Your task to perform on an android device: turn on the 12-hour format for clock Image 0: 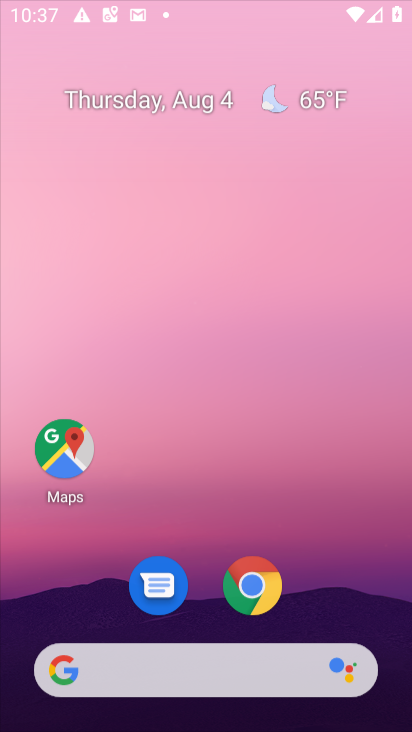
Step 0: click (295, 138)
Your task to perform on an android device: turn on the 12-hour format for clock Image 1: 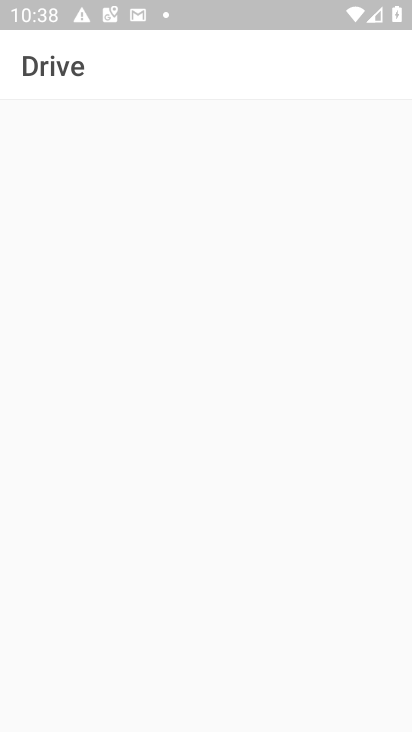
Step 1: press home button
Your task to perform on an android device: turn on the 12-hour format for clock Image 2: 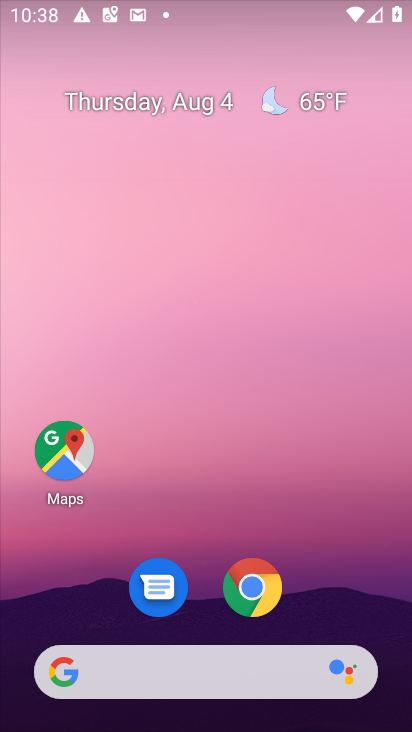
Step 2: drag from (216, 559) to (209, 171)
Your task to perform on an android device: turn on the 12-hour format for clock Image 3: 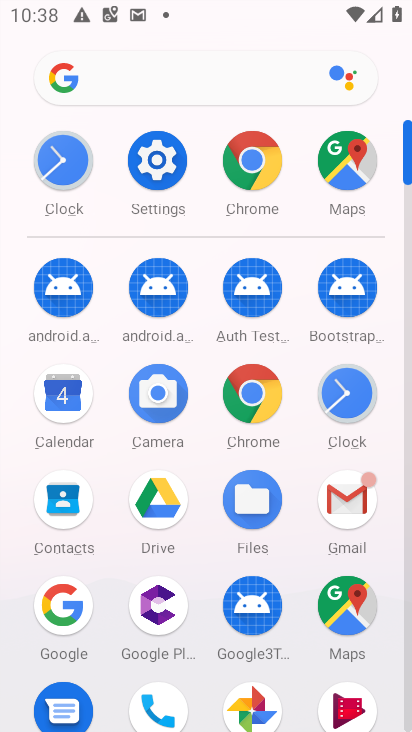
Step 3: click (340, 378)
Your task to perform on an android device: turn on the 12-hour format for clock Image 4: 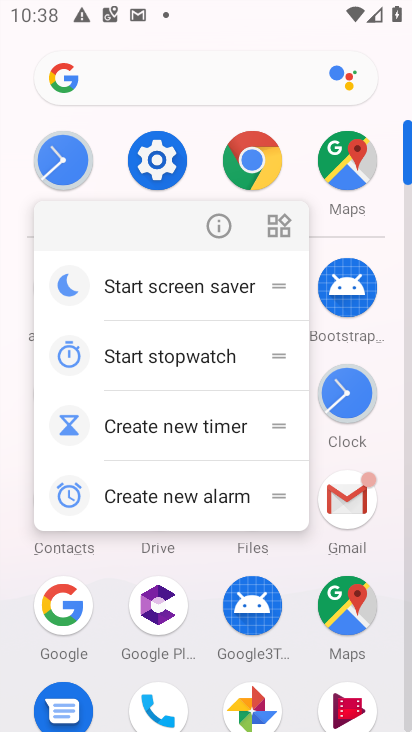
Step 4: click (347, 408)
Your task to perform on an android device: turn on the 12-hour format for clock Image 5: 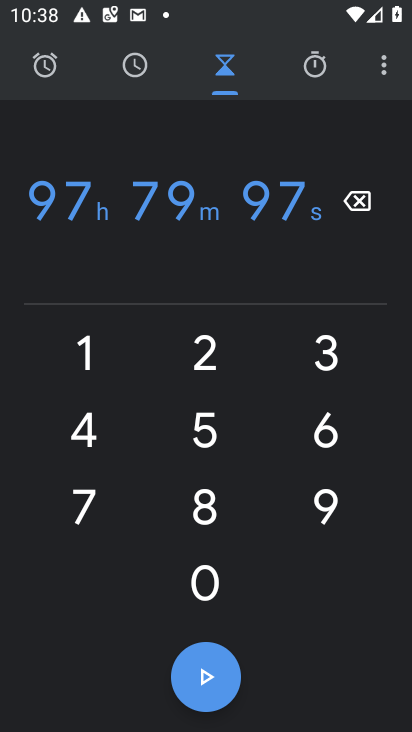
Step 5: click (395, 72)
Your task to perform on an android device: turn on the 12-hour format for clock Image 6: 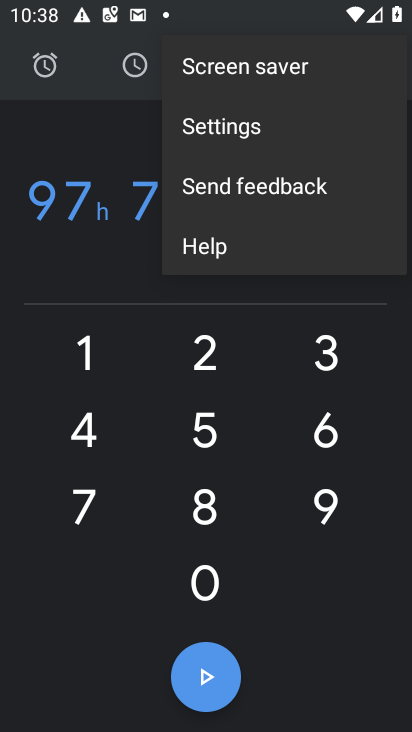
Step 6: click (216, 140)
Your task to perform on an android device: turn on the 12-hour format for clock Image 7: 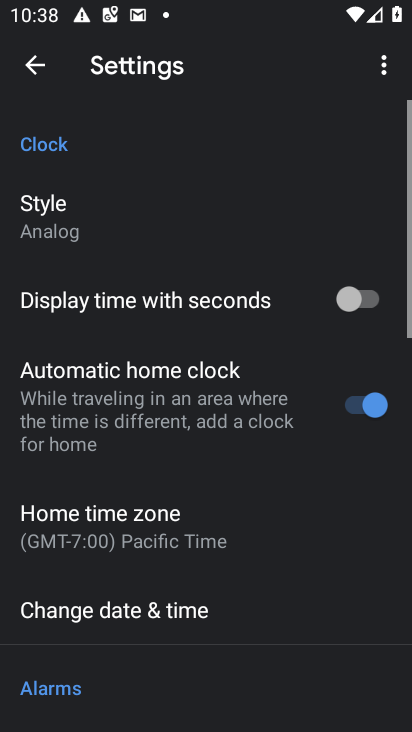
Step 7: drag from (166, 611) to (168, 336)
Your task to perform on an android device: turn on the 12-hour format for clock Image 8: 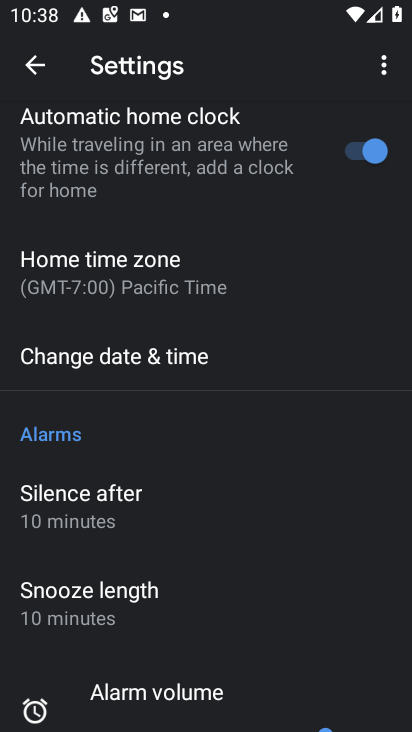
Step 8: click (151, 361)
Your task to perform on an android device: turn on the 12-hour format for clock Image 9: 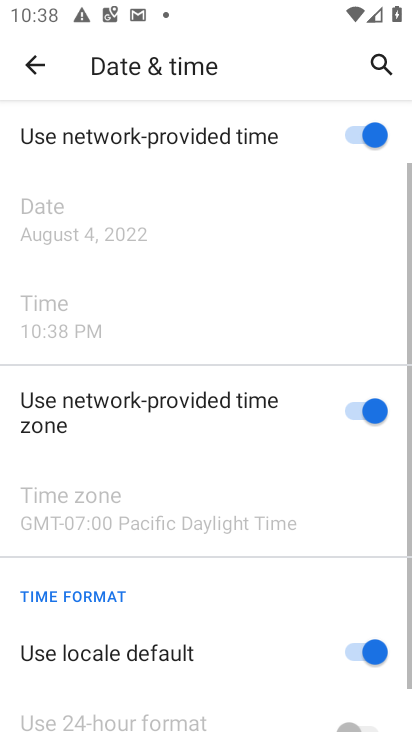
Step 9: drag from (226, 626) to (232, 297)
Your task to perform on an android device: turn on the 12-hour format for clock Image 10: 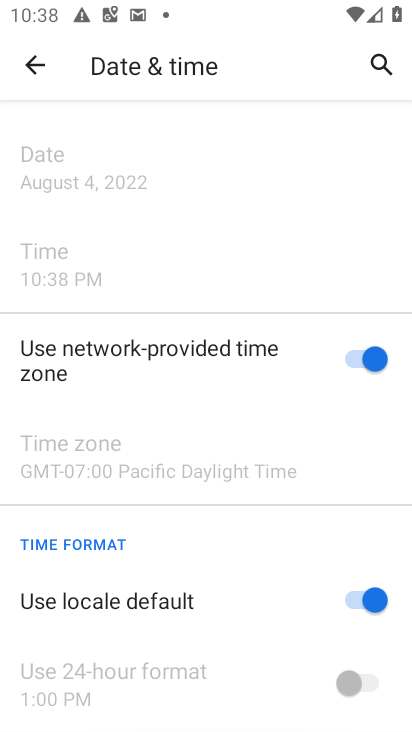
Step 10: click (346, 597)
Your task to perform on an android device: turn on the 12-hour format for clock Image 11: 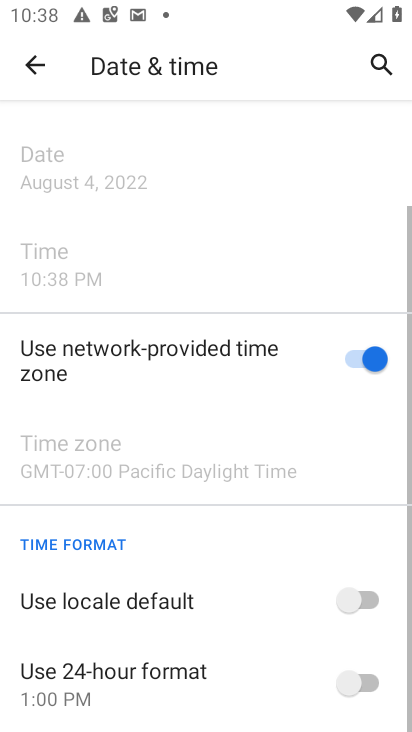
Step 11: click (358, 682)
Your task to perform on an android device: turn on the 12-hour format for clock Image 12: 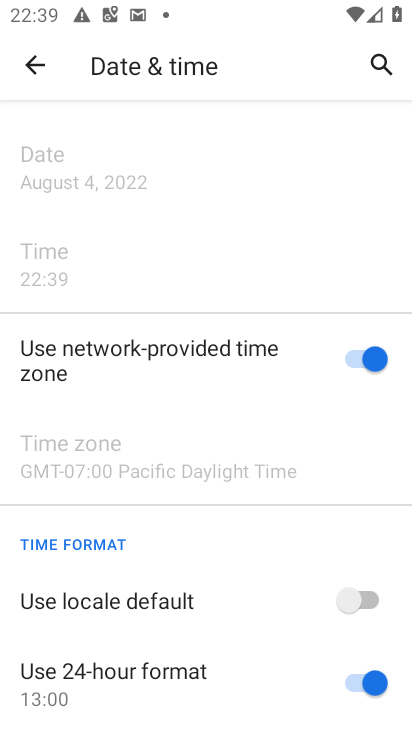
Step 12: task complete